Your task to perform on an android device: What's on my calendar tomorrow? Image 0: 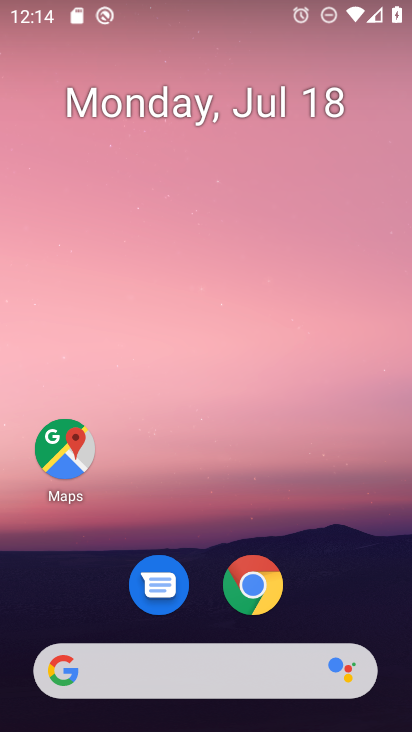
Step 0: drag from (216, 523) to (271, 21)
Your task to perform on an android device: What's on my calendar tomorrow? Image 1: 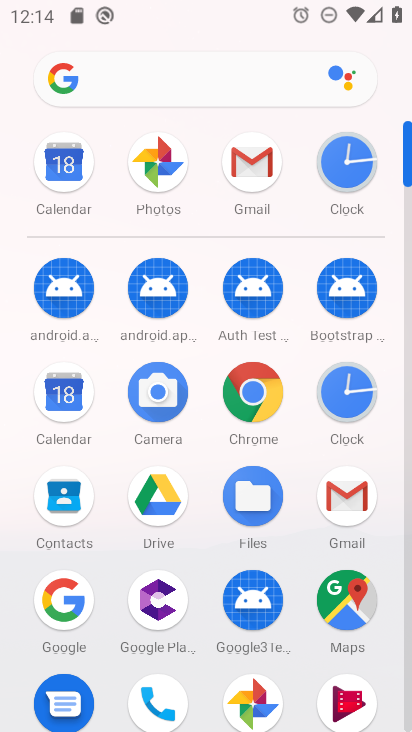
Step 1: click (61, 156)
Your task to perform on an android device: What's on my calendar tomorrow? Image 2: 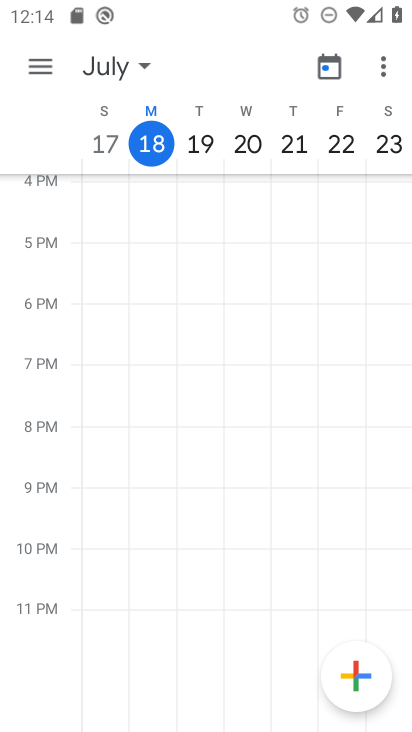
Step 2: task complete